Your task to perform on an android device: turn notification dots on Image 0: 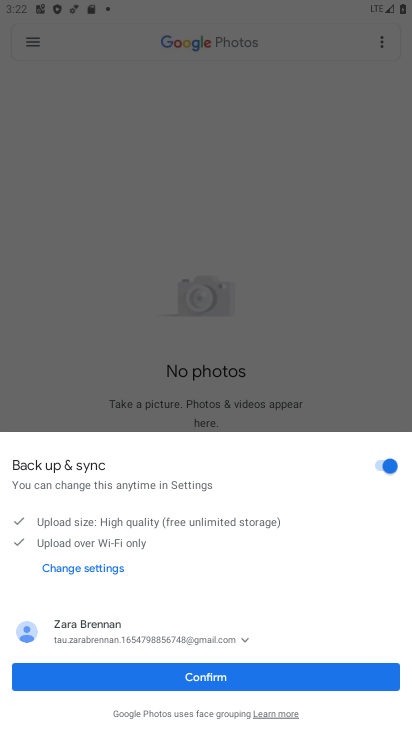
Step 0: press home button
Your task to perform on an android device: turn notification dots on Image 1: 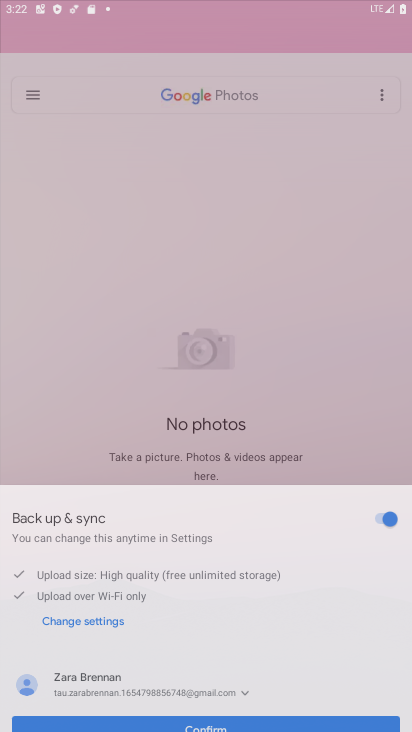
Step 1: press home button
Your task to perform on an android device: turn notification dots on Image 2: 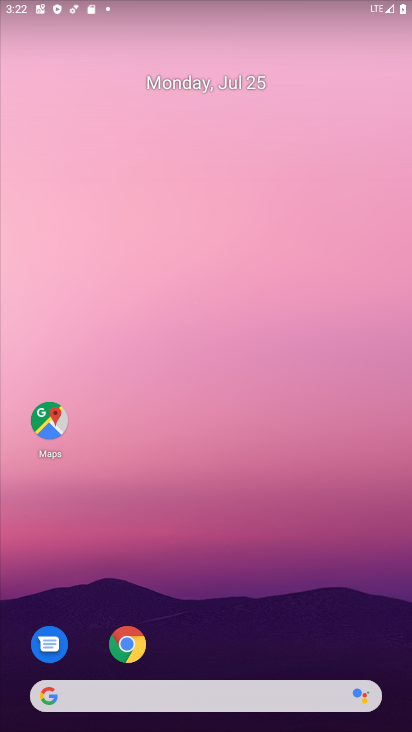
Step 2: drag from (287, 633) to (213, 180)
Your task to perform on an android device: turn notification dots on Image 3: 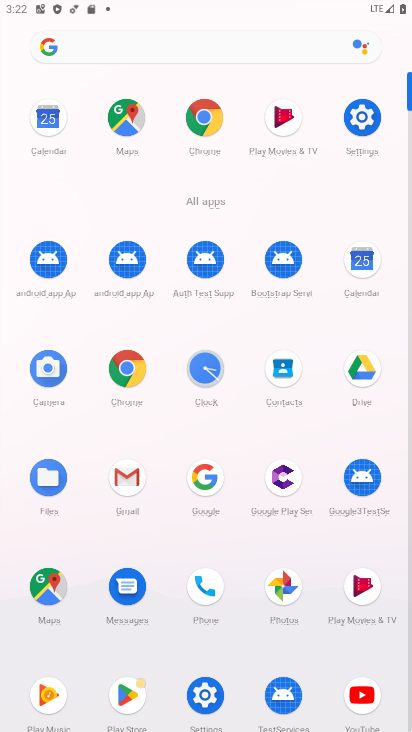
Step 3: click (366, 122)
Your task to perform on an android device: turn notification dots on Image 4: 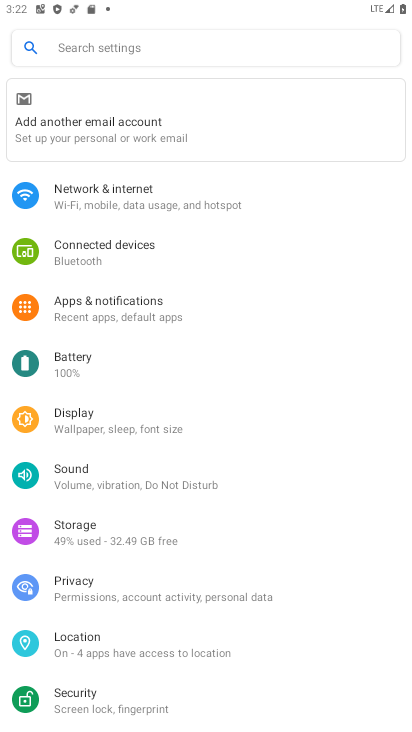
Step 4: click (206, 306)
Your task to perform on an android device: turn notification dots on Image 5: 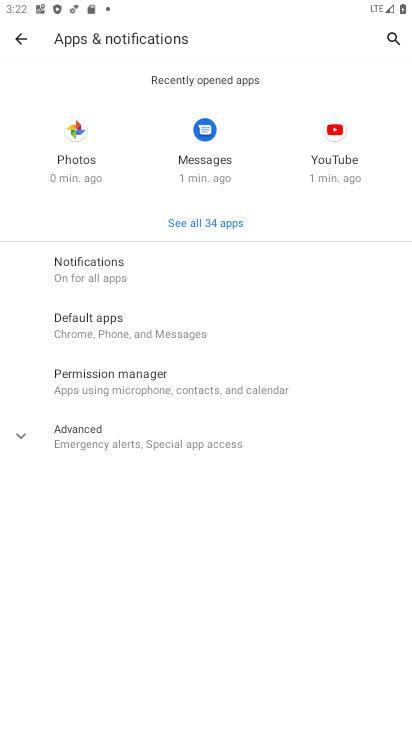
Step 5: click (245, 277)
Your task to perform on an android device: turn notification dots on Image 6: 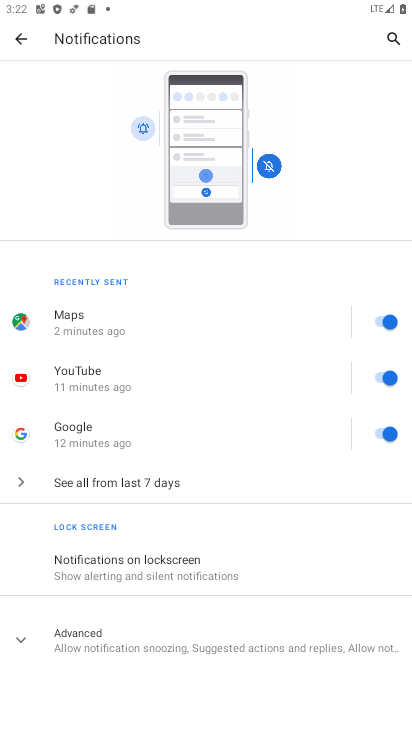
Step 6: click (308, 636)
Your task to perform on an android device: turn notification dots on Image 7: 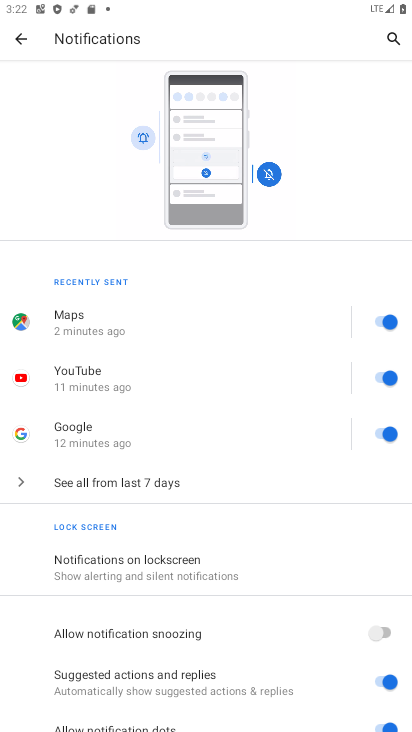
Step 7: task complete